Your task to perform on an android device: Search for seafood restaurants on Google Maps Image 0: 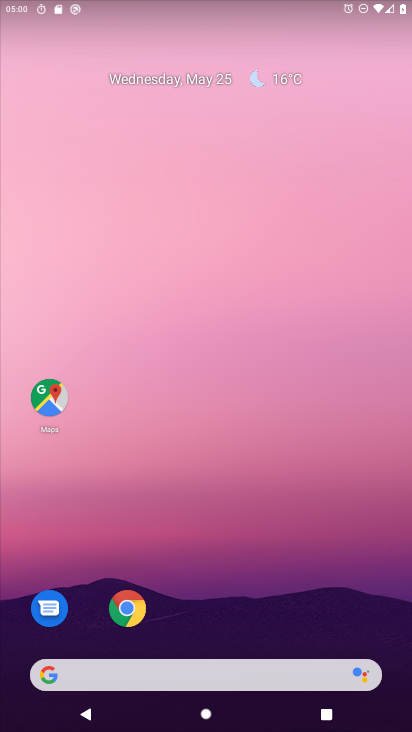
Step 0: drag from (255, 451) to (288, 2)
Your task to perform on an android device: Search for seafood restaurants on Google Maps Image 1: 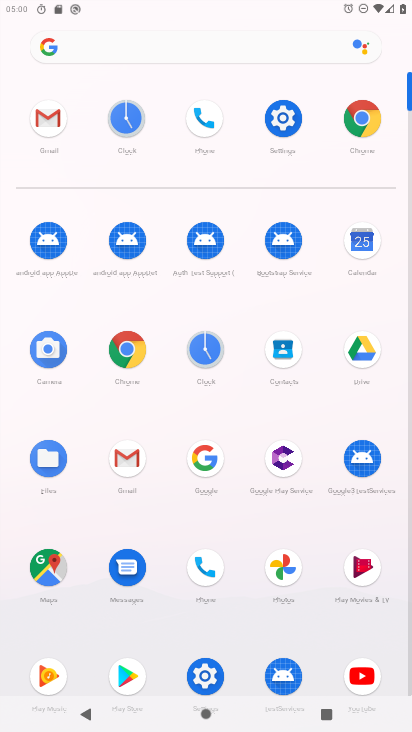
Step 1: click (55, 563)
Your task to perform on an android device: Search for seafood restaurants on Google Maps Image 2: 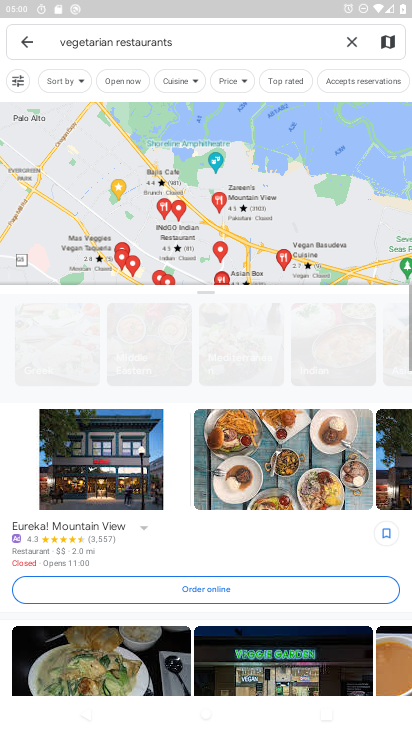
Step 2: click (207, 43)
Your task to perform on an android device: Search for seafood restaurants on Google Maps Image 3: 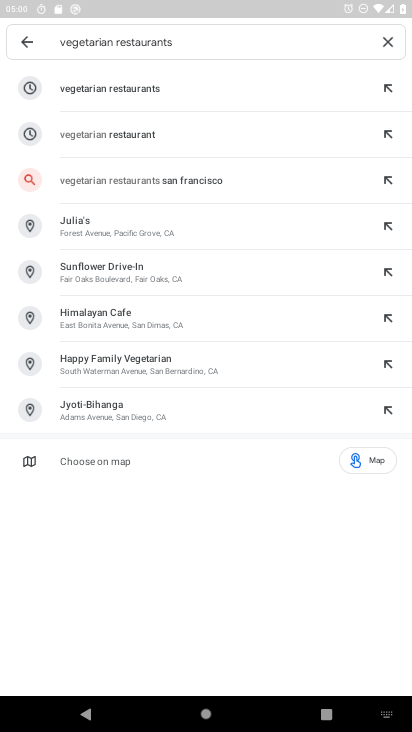
Step 3: click (392, 37)
Your task to perform on an android device: Search for seafood restaurants on Google Maps Image 4: 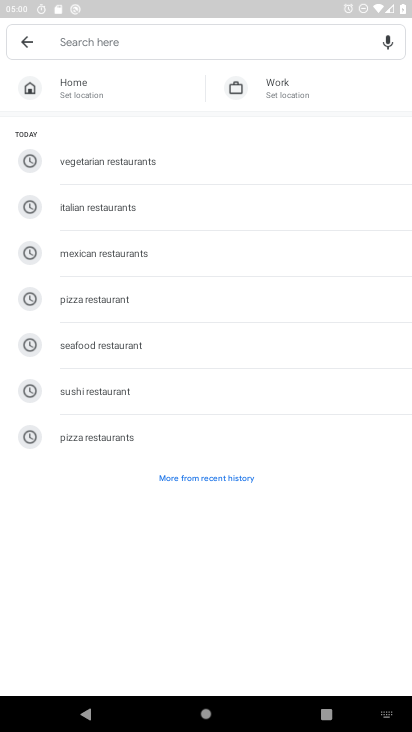
Step 4: type "seafood restaurants"
Your task to perform on an android device: Search for seafood restaurants on Google Maps Image 5: 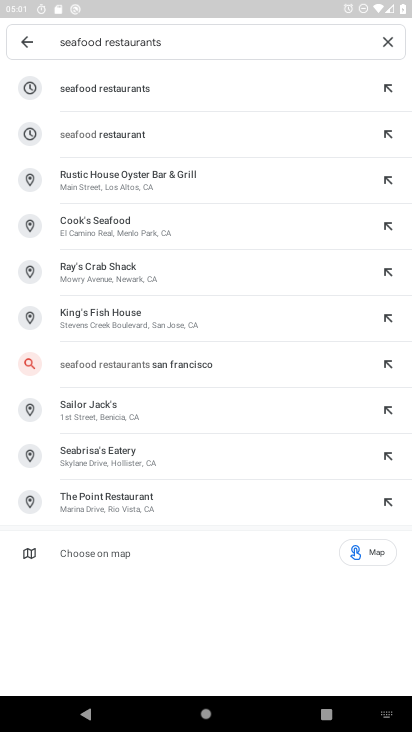
Step 5: click (247, 103)
Your task to perform on an android device: Search for seafood restaurants on Google Maps Image 6: 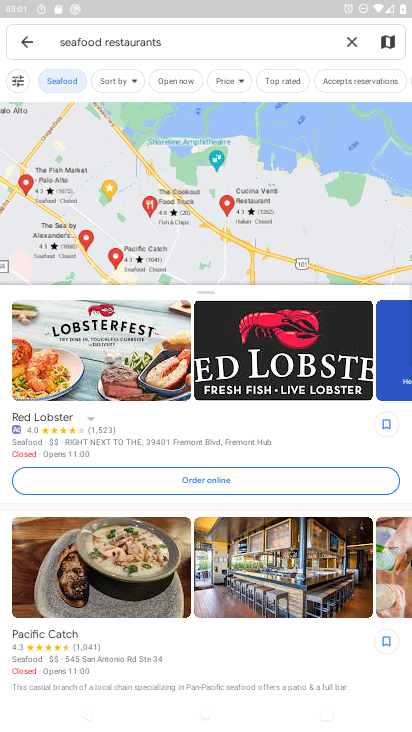
Step 6: task complete